Your task to perform on an android device: Search for "logitech g903" on newegg.com, select the first entry, and add it to the cart. Image 0: 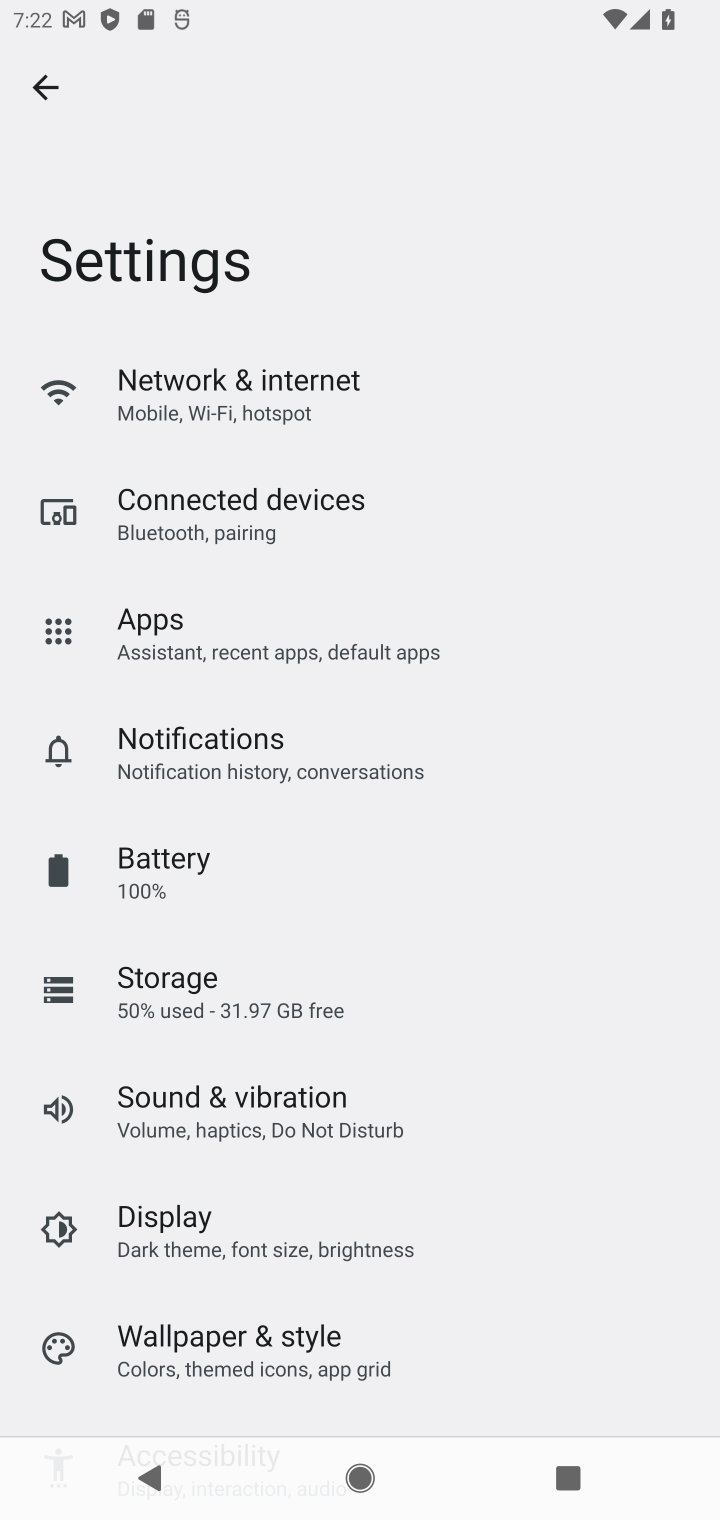
Step 0: press home button
Your task to perform on an android device: Search for "logitech g903" on newegg.com, select the first entry, and add it to the cart. Image 1: 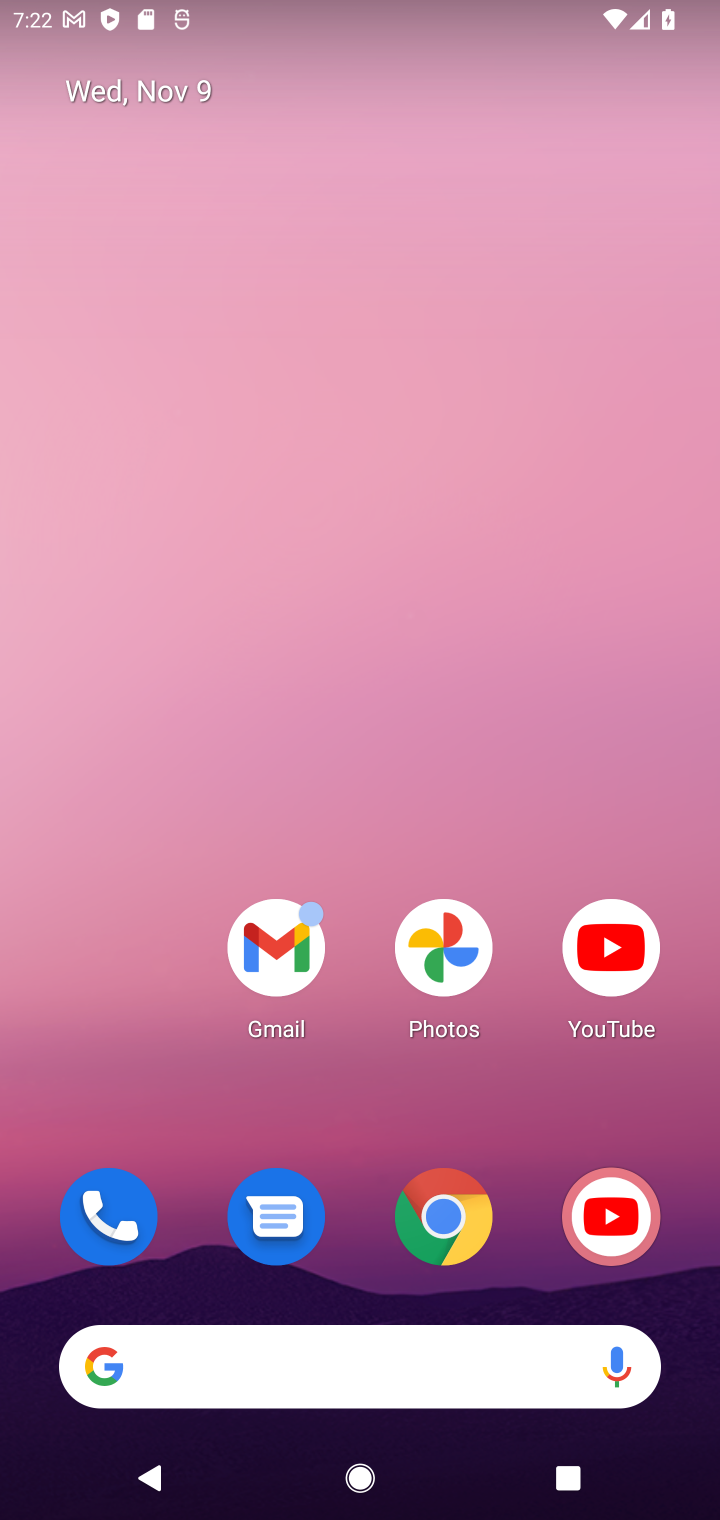
Step 1: drag from (336, 1072) to (345, 182)
Your task to perform on an android device: Search for "logitech g903" on newegg.com, select the first entry, and add it to the cart. Image 2: 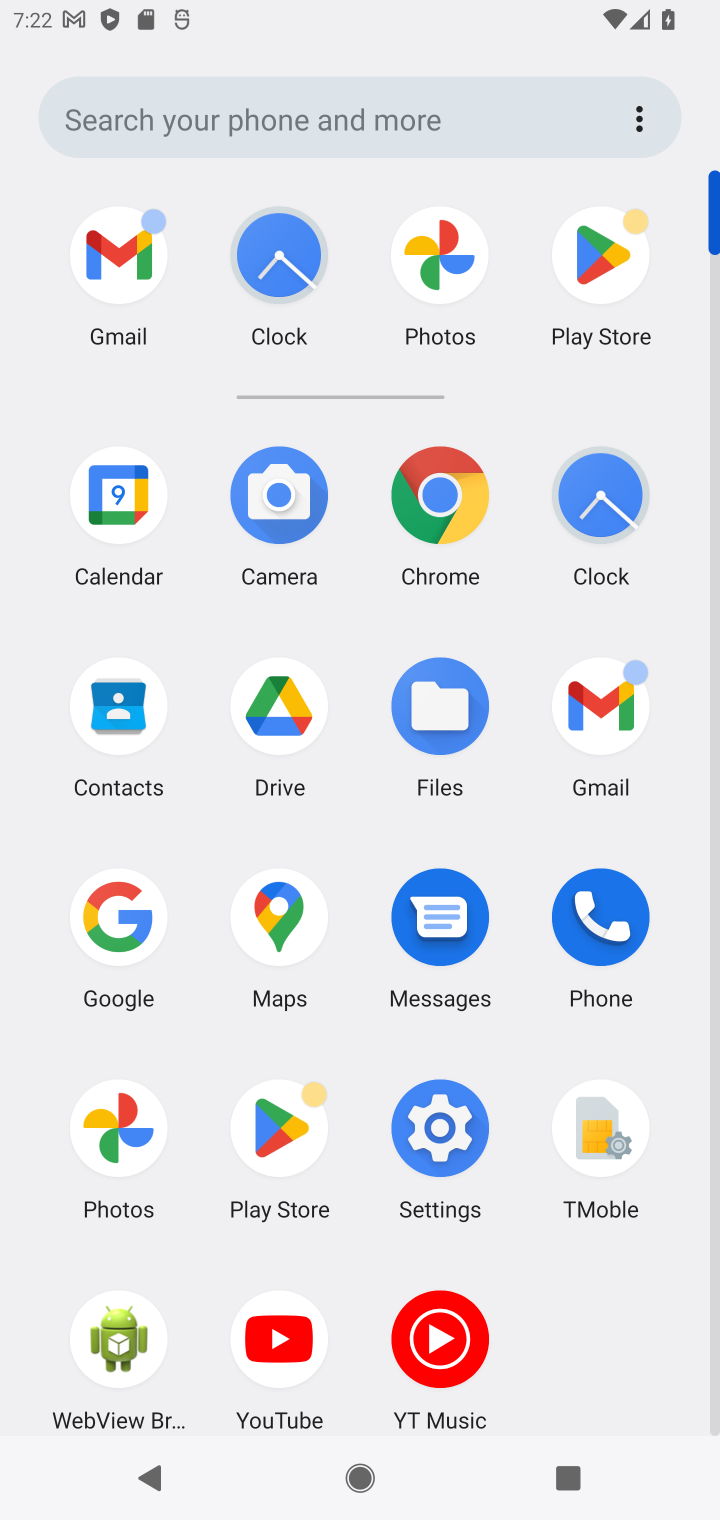
Step 2: click (456, 504)
Your task to perform on an android device: Search for "logitech g903" on newegg.com, select the first entry, and add it to the cart. Image 3: 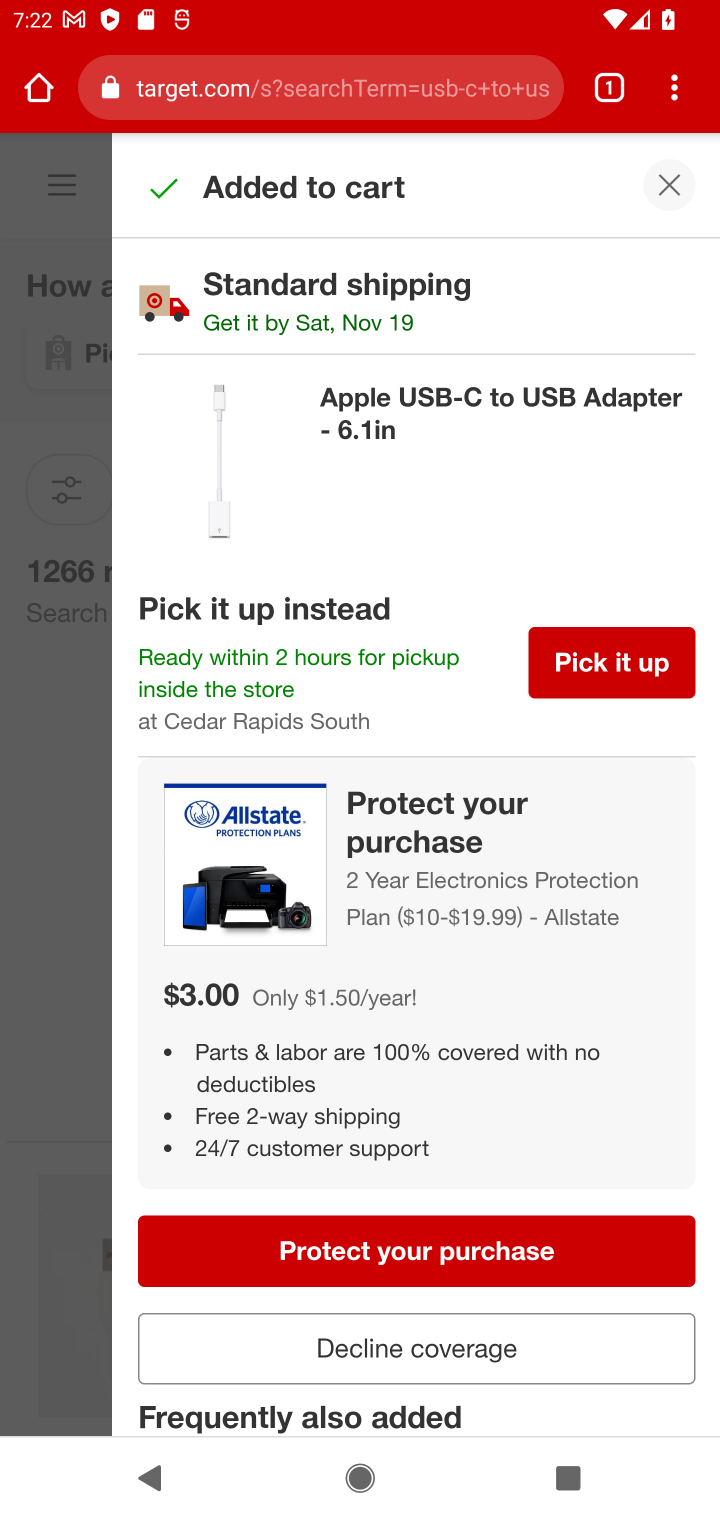
Step 3: click (390, 101)
Your task to perform on an android device: Search for "logitech g903" on newegg.com, select the first entry, and add it to the cart. Image 4: 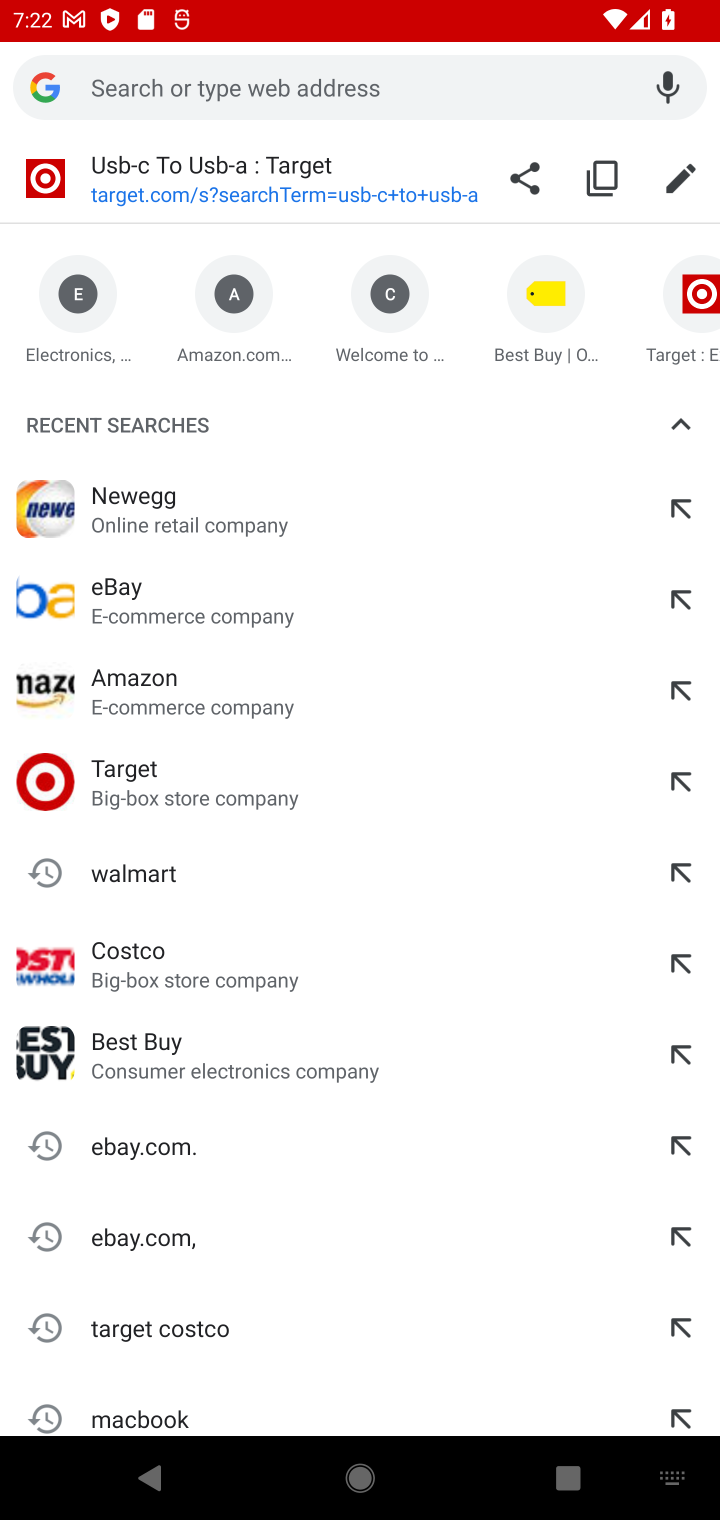
Step 4: type "newegg.com"
Your task to perform on an android device: Search for "logitech g903" on newegg.com, select the first entry, and add it to the cart. Image 5: 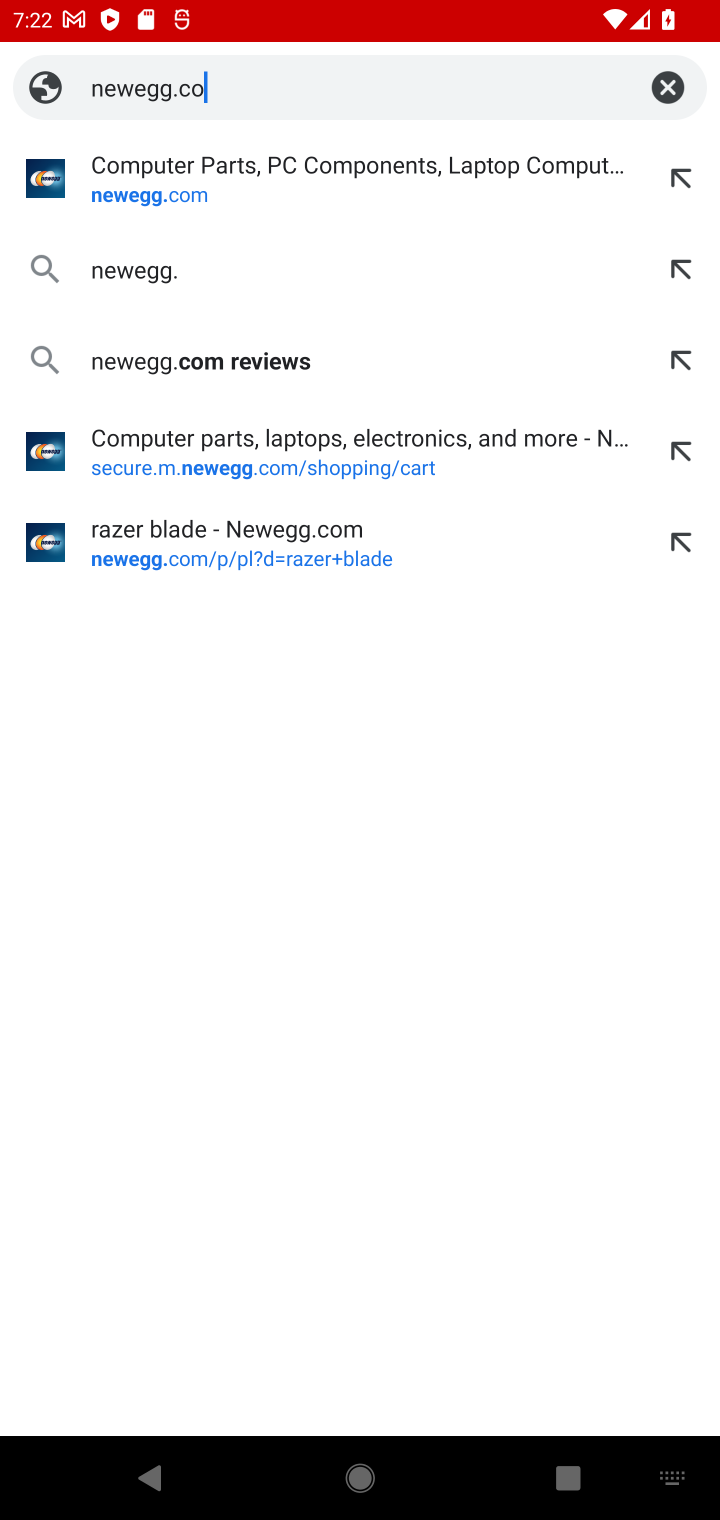
Step 5: press enter
Your task to perform on an android device: Search for "logitech g903" on newegg.com, select the first entry, and add it to the cart. Image 6: 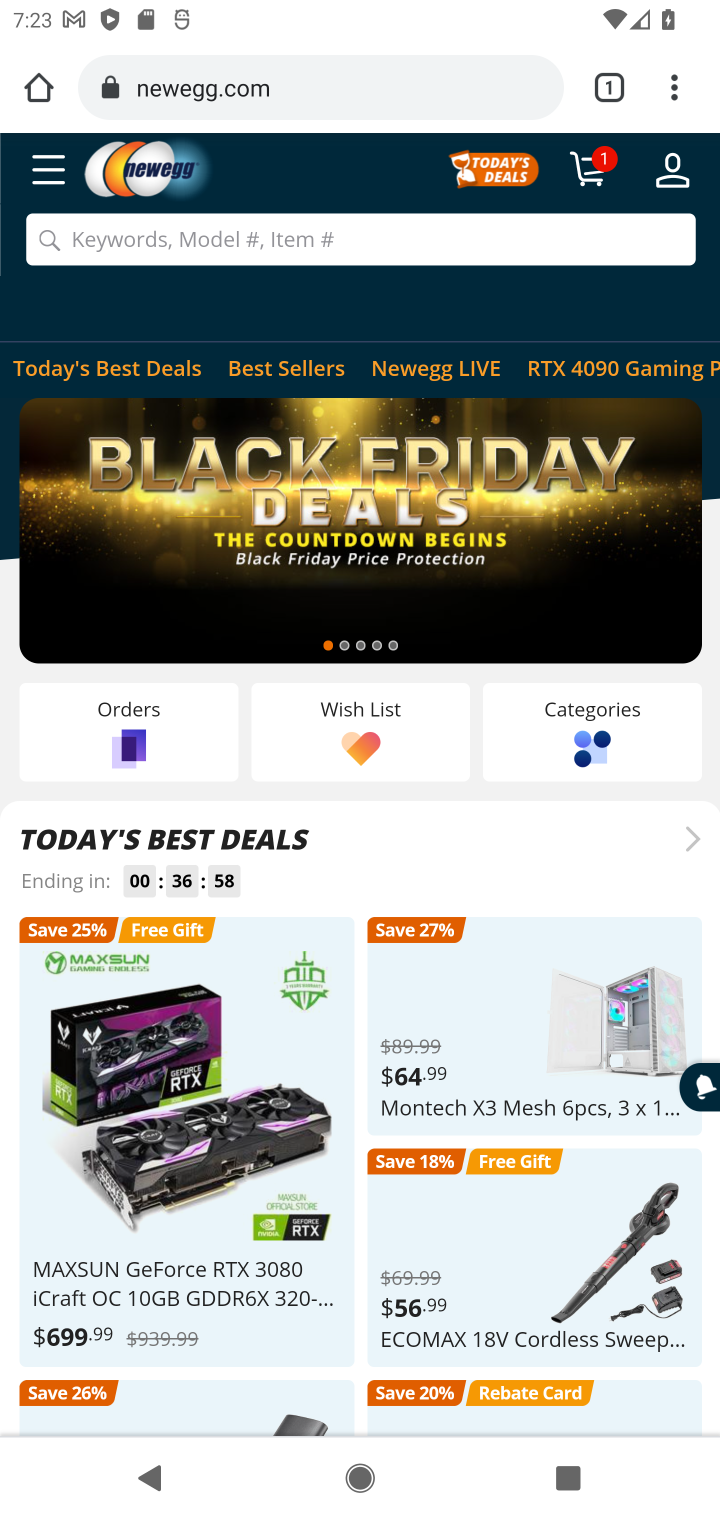
Step 6: click (385, 241)
Your task to perform on an android device: Search for "logitech g903" on newegg.com, select the first entry, and add it to the cart. Image 7: 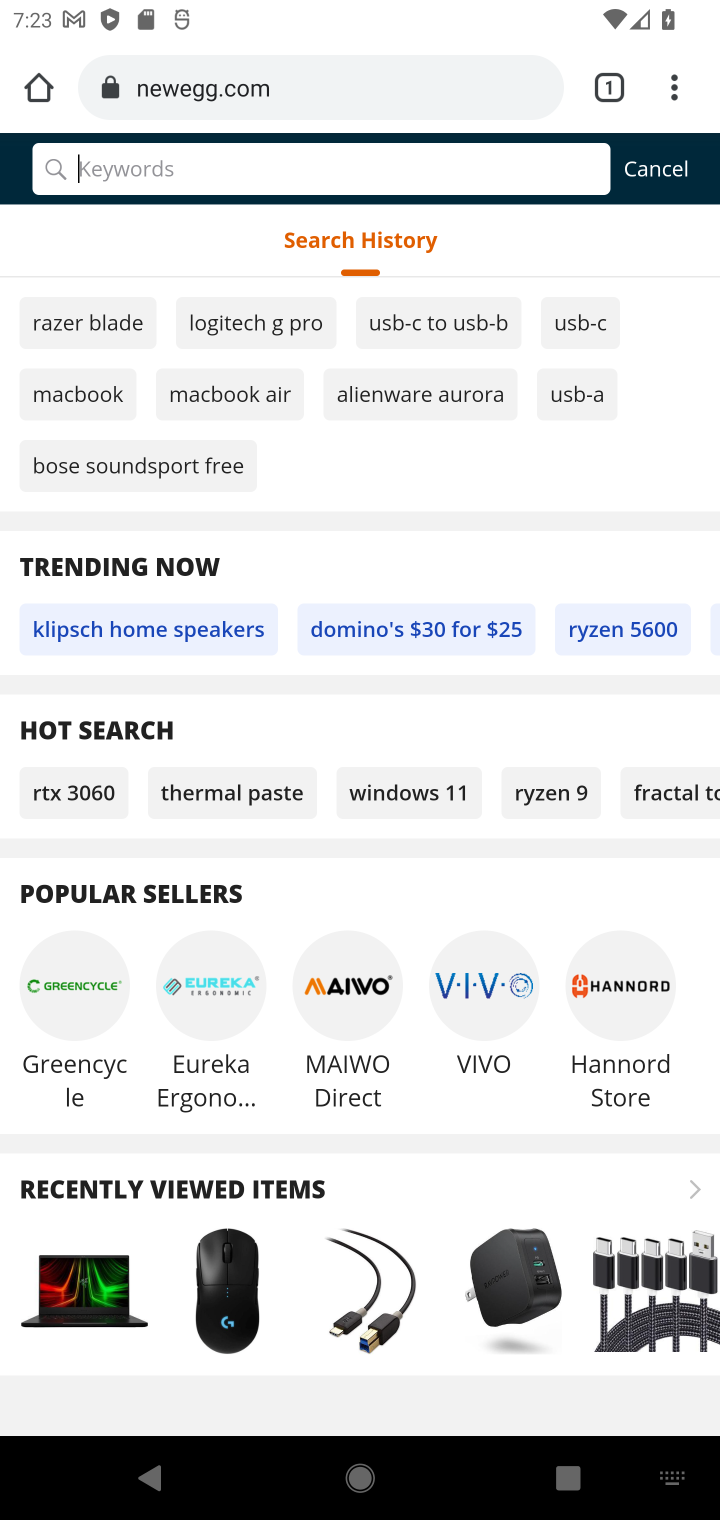
Step 7: type "logitech g903"
Your task to perform on an android device: Search for "logitech g903" on newegg.com, select the first entry, and add it to the cart. Image 8: 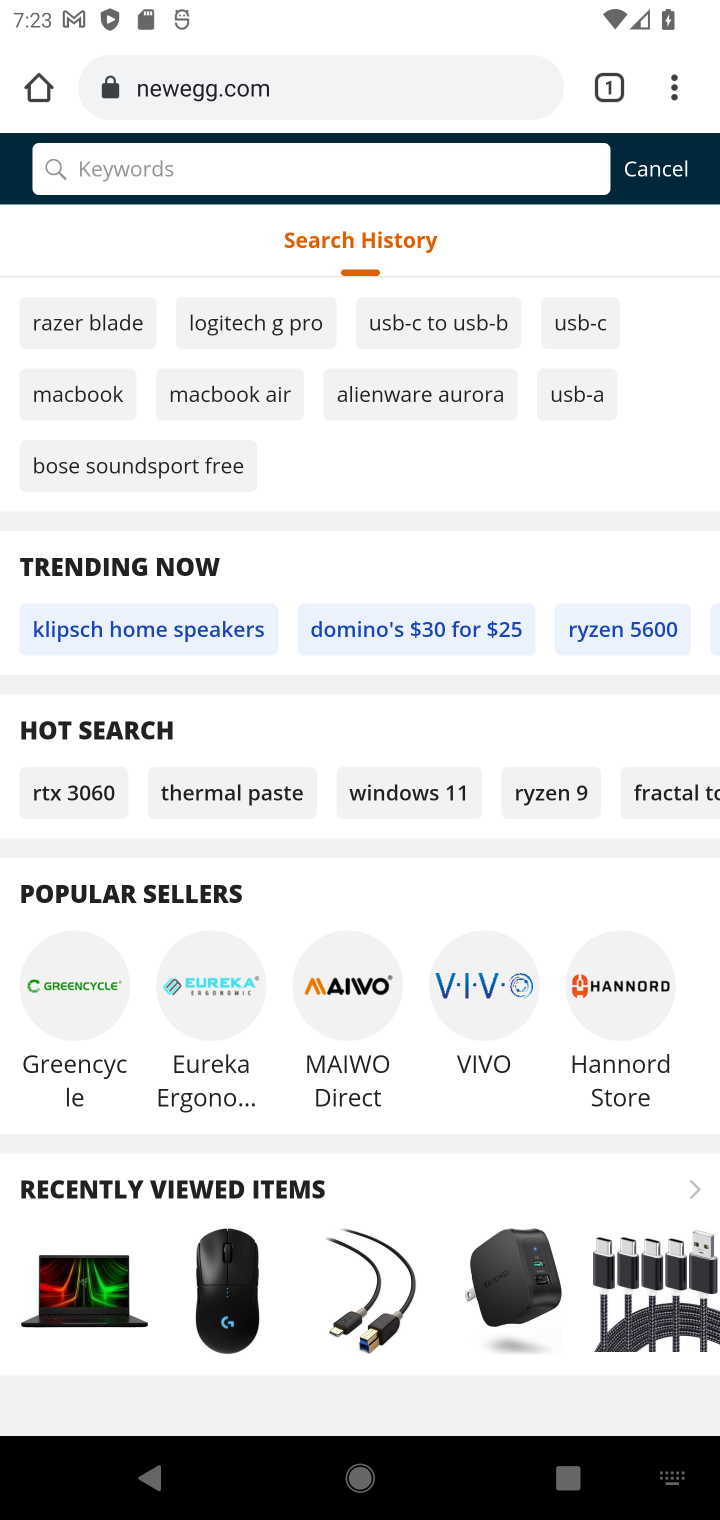
Step 8: press enter
Your task to perform on an android device: Search for "logitech g903" on newegg.com, select the first entry, and add it to the cart. Image 9: 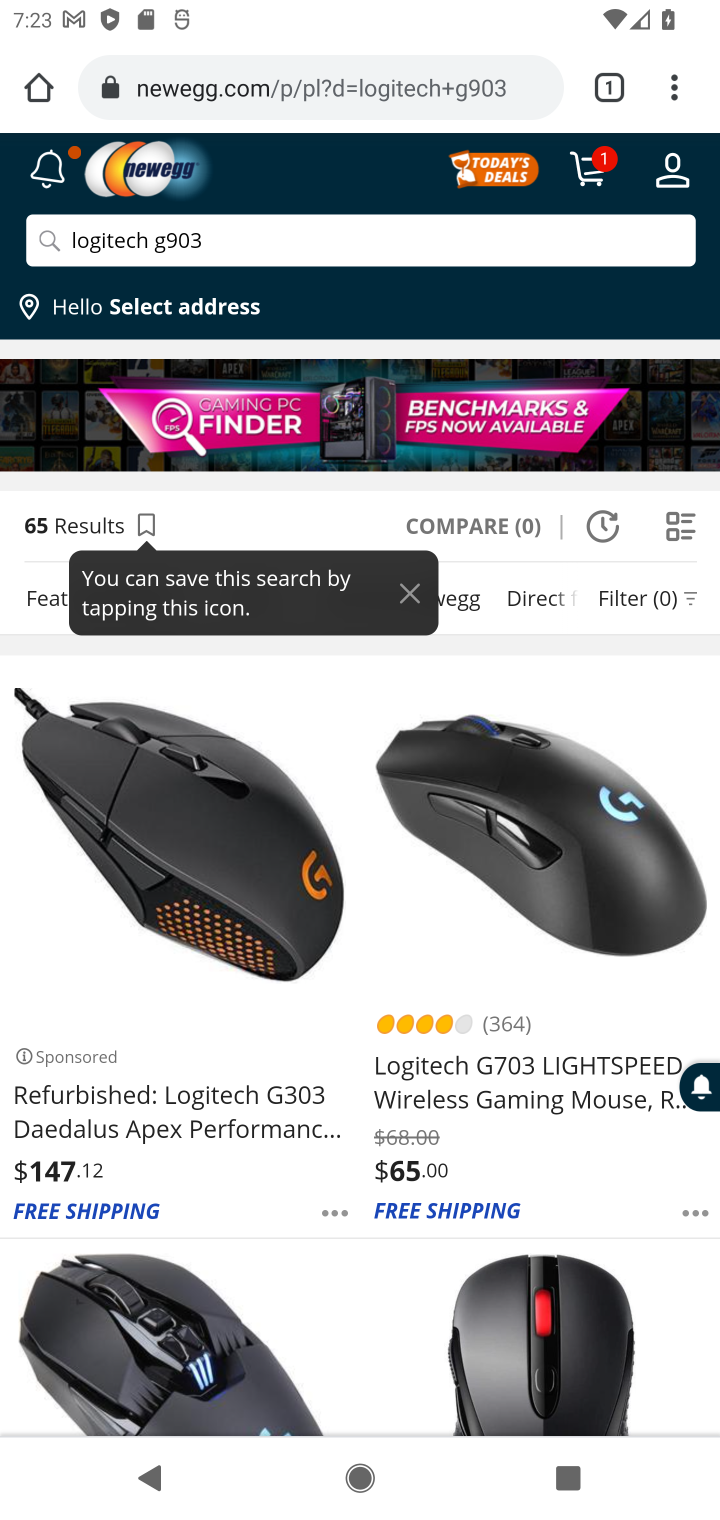
Step 9: drag from (414, 1305) to (385, 803)
Your task to perform on an android device: Search for "logitech g903" on newegg.com, select the first entry, and add it to the cart. Image 10: 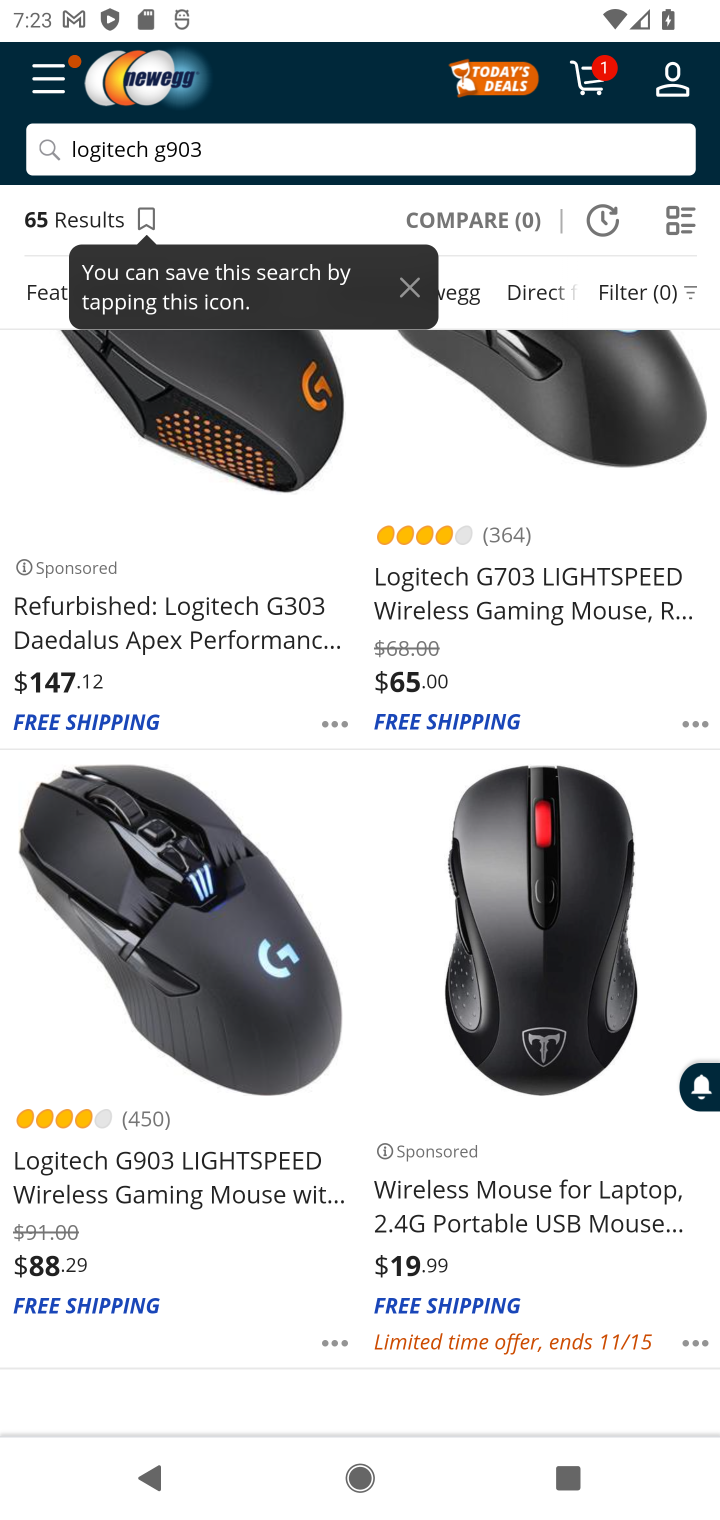
Step 10: click (242, 1187)
Your task to perform on an android device: Search for "logitech g903" on newegg.com, select the first entry, and add it to the cart. Image 11: 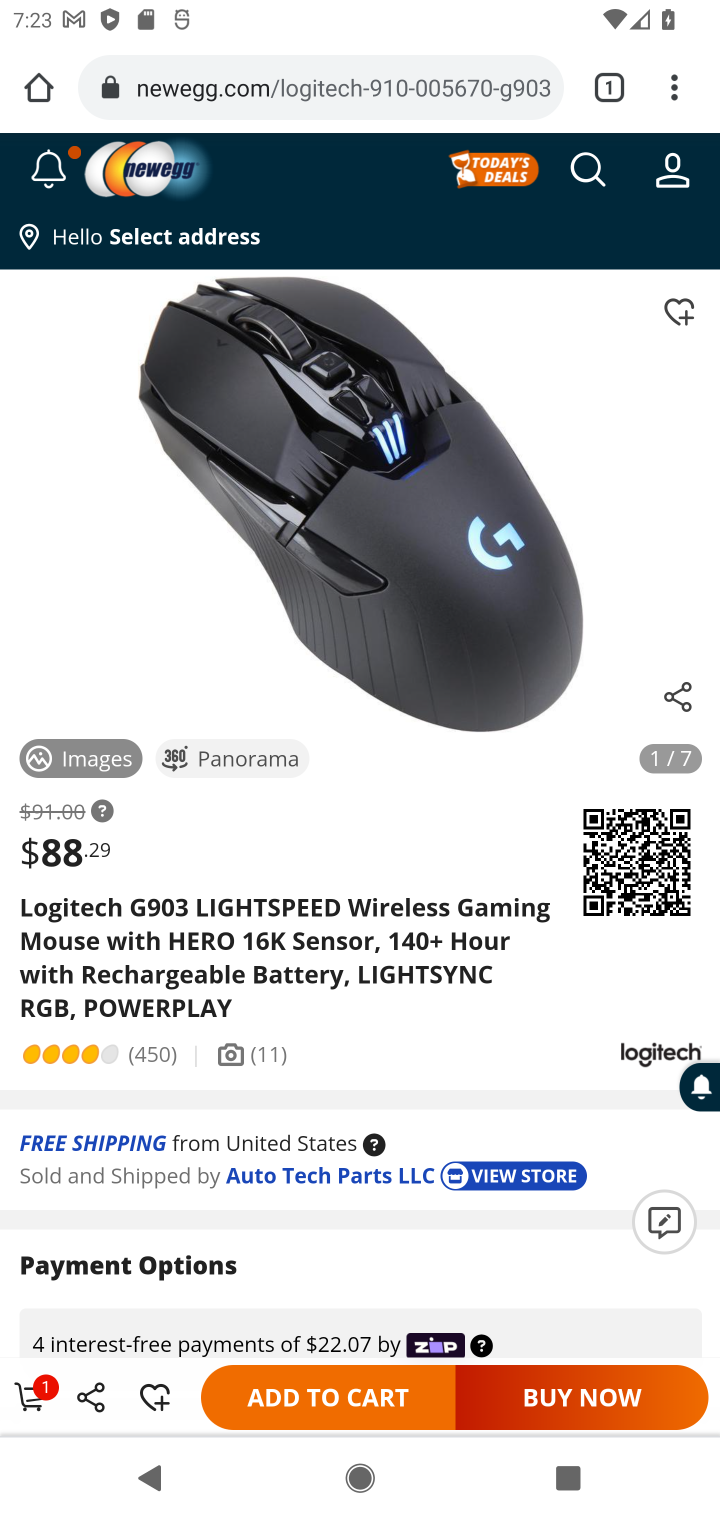
Step 11: click (310, 1387)
Your task to perform on an android device: Search for "logitech g903" on newegg.com, select the first entry, and add it to the cart. Image 12: 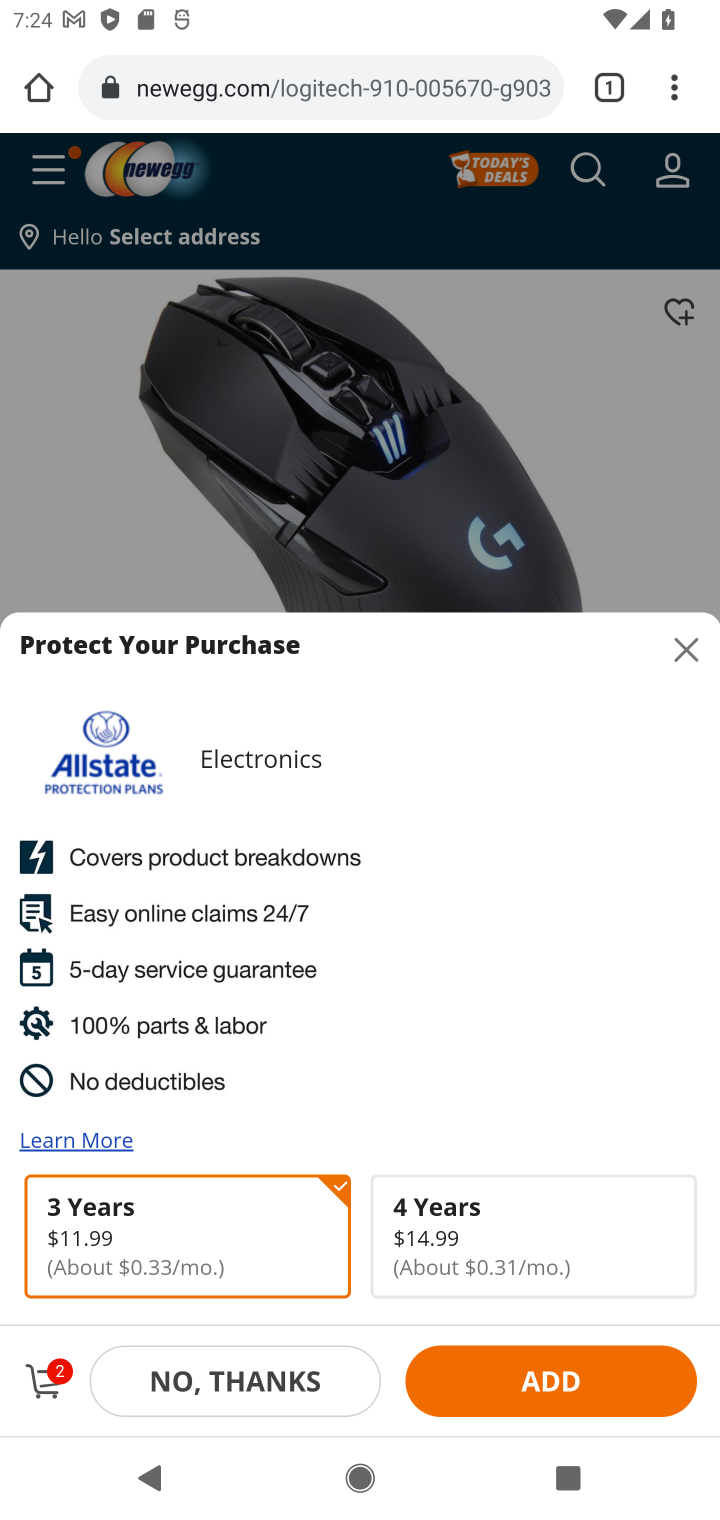
Step 12: task complete